Your task to perform on an android device: Open settings on Google Maps Image 0: 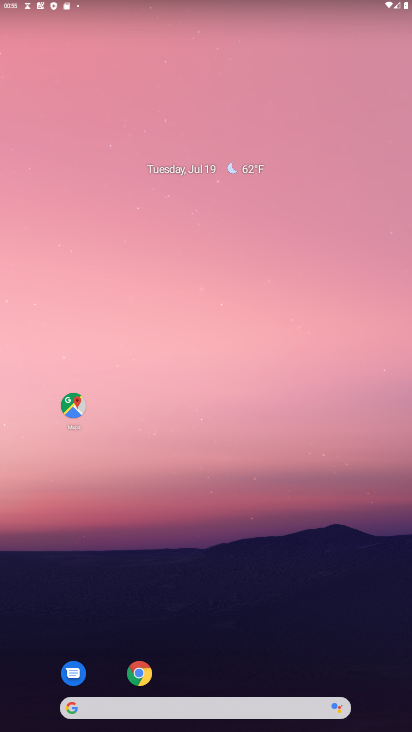
Step 0: drag from (153, 637) to (158, 294)
Your task to perform on an android device: Open settings on Google Maps Image 1: 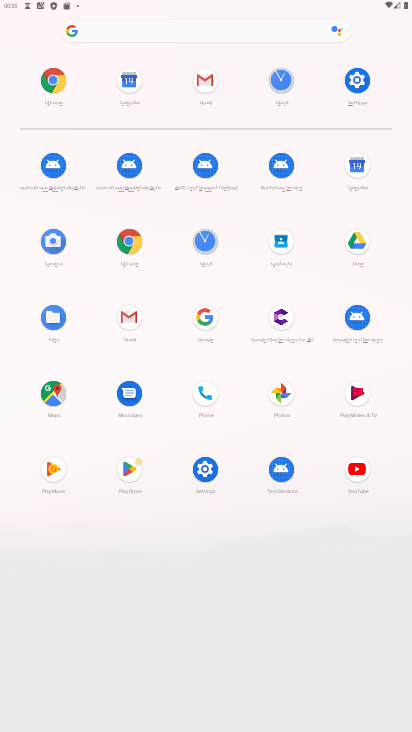
Step 1: click (54, 390)
Your task to perform on an android device: Open settings on Google Maps Image 2: 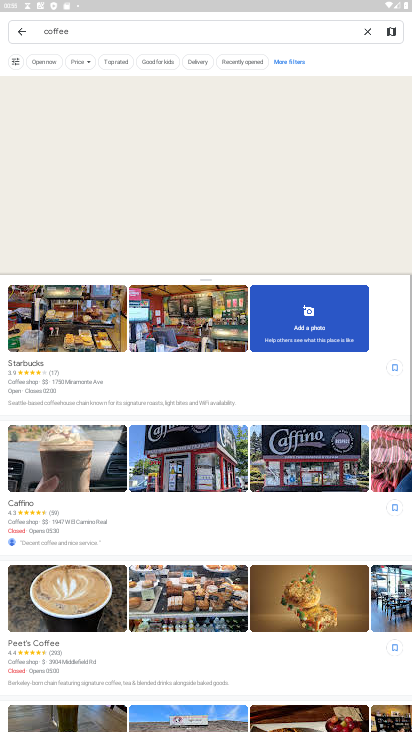
Step 2: click (358, 29)
Your task to perform on an android device: Open settings on Google Maps Image 3: 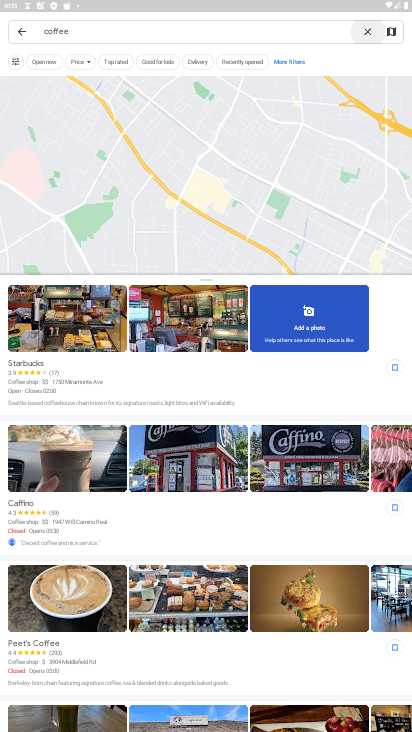
Step 3: click (368, 30)
Your task to perform on an android device: Open settings on Google Maps Image 4: 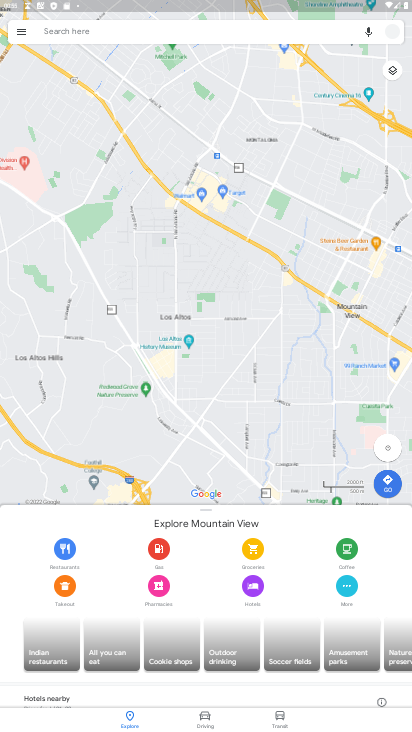
Step 4: click (29, 32)
Your task to perform on an android device: Open settings on Google Maps Image 5: 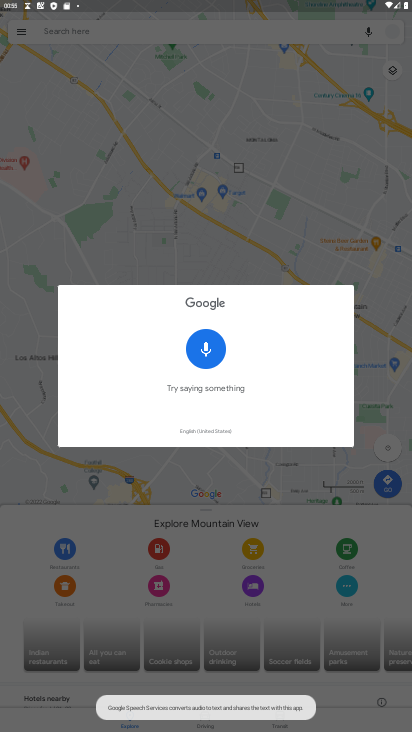
Step 5: click (19, 28)
Your task to perform on an android device: Open settings on Google Maps Image 6: 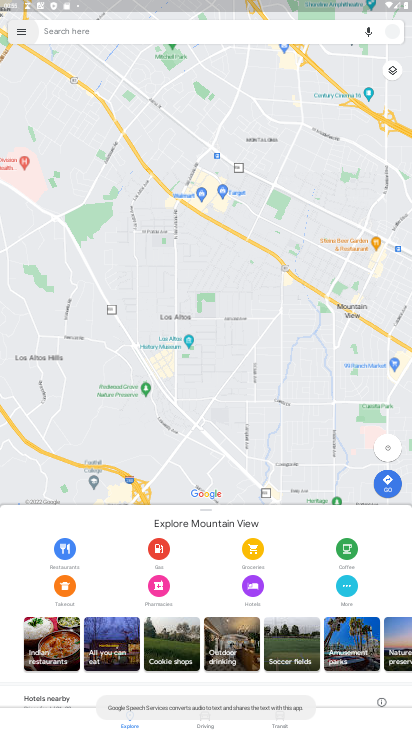
Step 6: click (19, 28)
Your task to perform on an android device: Open settings on Google Maps Image 7: 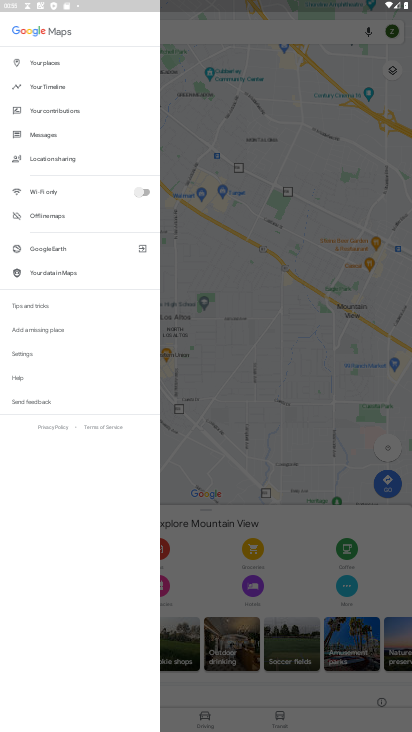
Step 7: click (37, 348)
Your task to perform on an android device: Open settings on Google Maps Image 8: 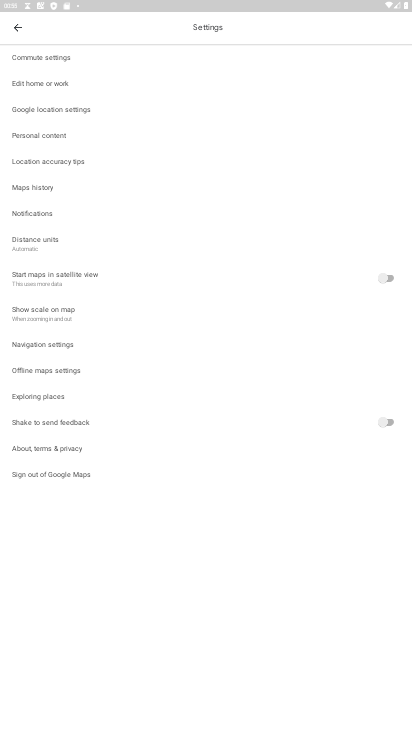
Step 8: task complete